Your task to perform on an android device: Open sound settings Image 0: 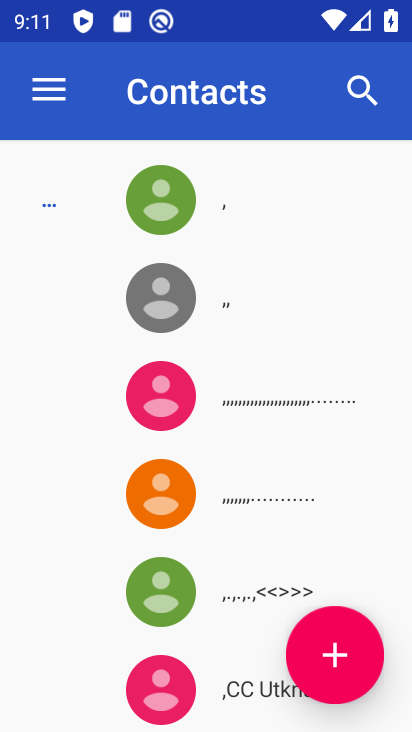
Step 0: task complete